Your task to perform on an android device: Search for pizza restaurants on Maps Image 0: 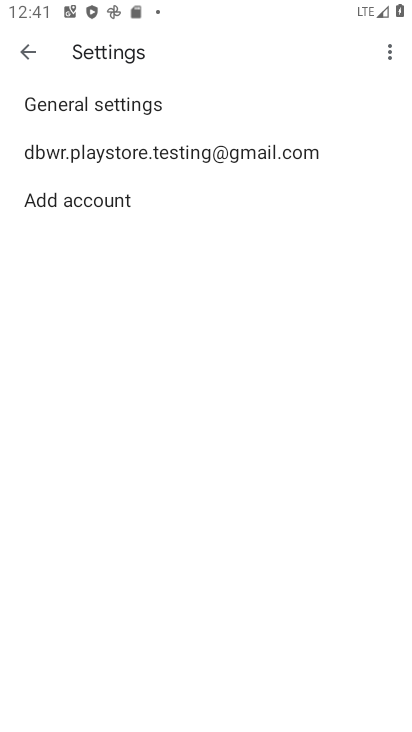
Step 0: press home button
Your task to perform on an android device: Search for pizza restaurants on Maps Image 1: 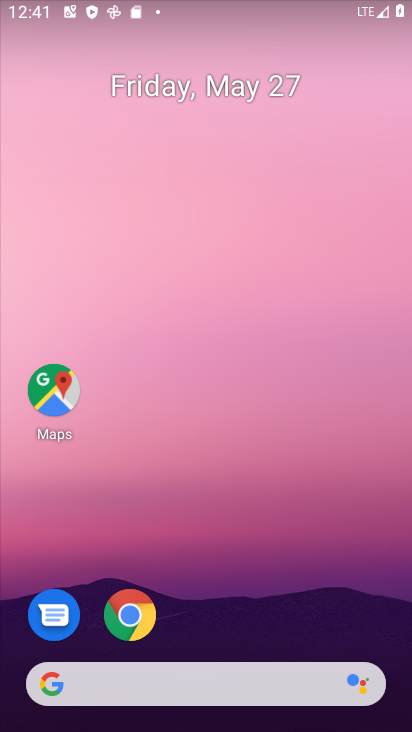
Step 1: drag from (281, 655) to (377, 37)
Your task to perform on an android device: Search for pizza restaurants on Maps Image 2: 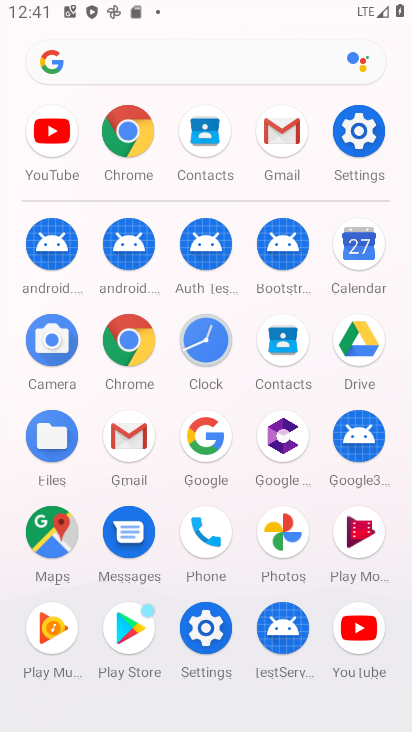
Step 2: click (35, 535)
Your task to perform on an android device: Search for pizza restaurants on Maps Image 3: 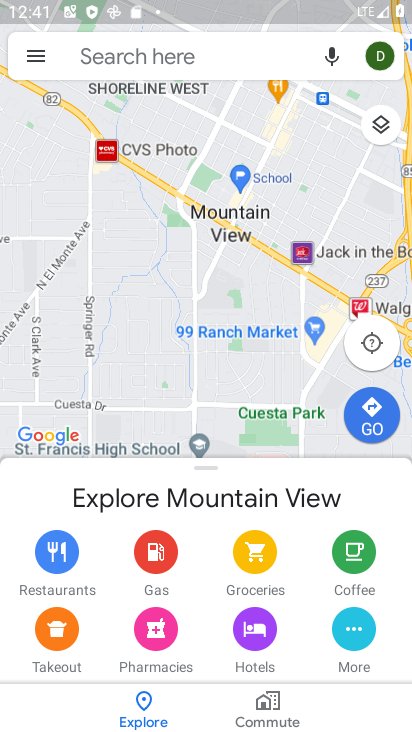
Step 3: click (218, 60)
Your task to perform on an android device: Search for pizza restaurants on Maps Image 4: 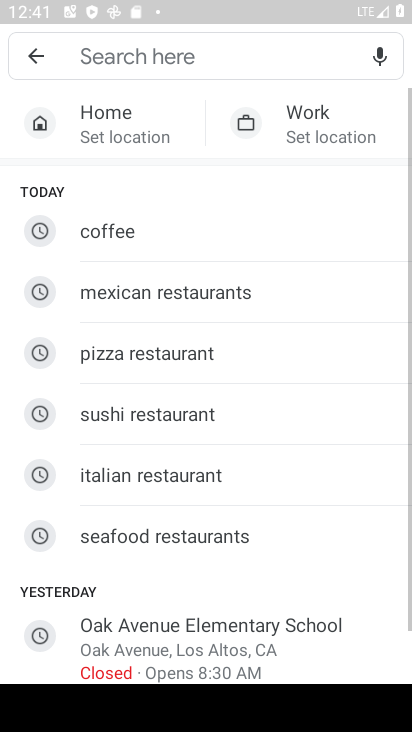
Step 4: click (148, 362)
Your task to perform on an android device: Search for pizza restaurants on Maps Image 5: 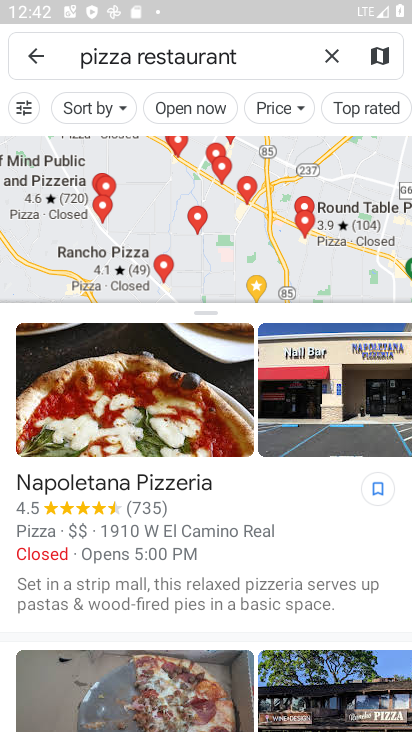
Step 5: task complete